Your task to perform on an android device: read, delete, or share a saved page in the chrome app Image 0: 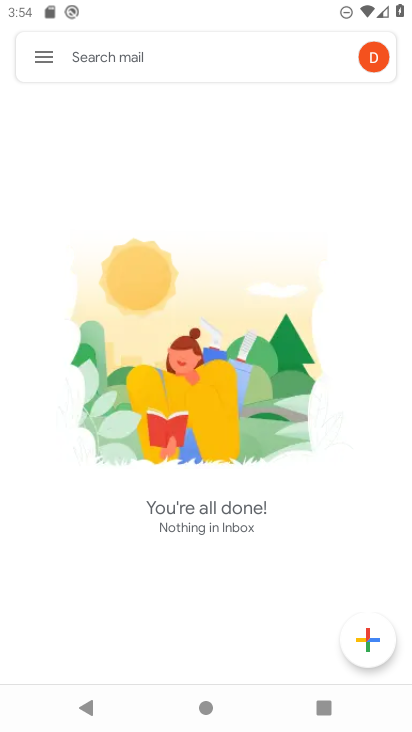
Step 0: press home button
Your task to perform on an android device: read, delete, or share a saved page in the chrome app Image 1: 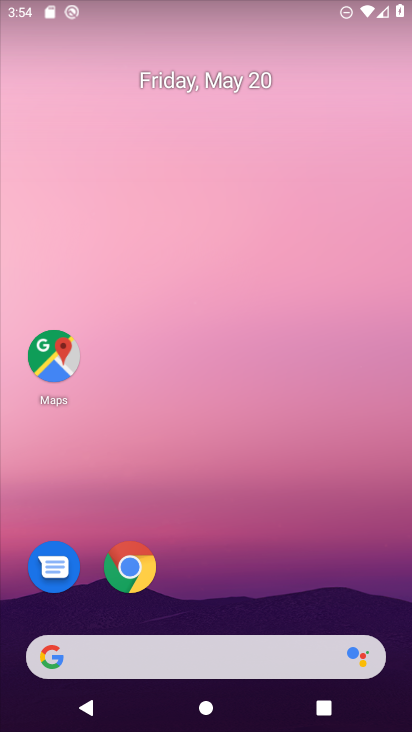
Step 1: click (130, 573)
Your task to perform on an android device: read, delete, or share a saved page in the chrome app Image 2: 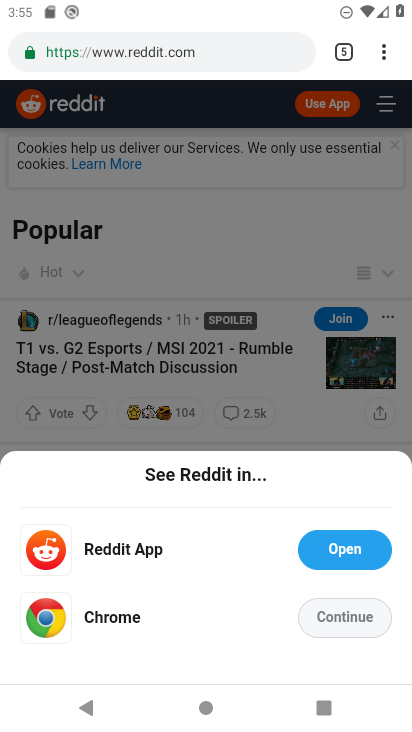
Step 2: click (385, 58)
Your task to perform on an android device: read, delete, or share a saved page in the chrome app Image 3: 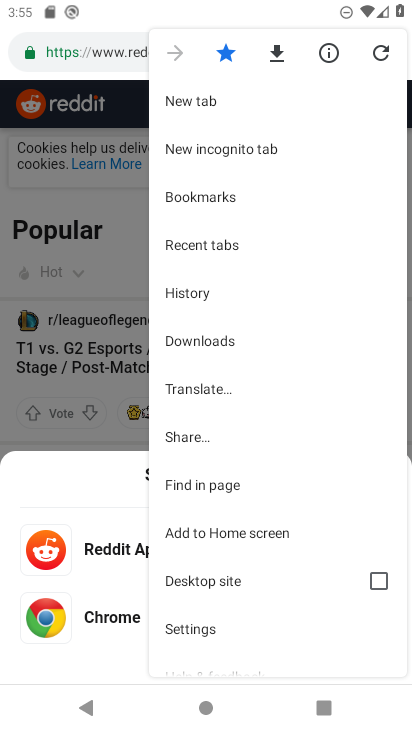
Step 3: click (195, 341)
Your task to perform on an android device: read, delete, or share a saved page in the chrome app Image 4: 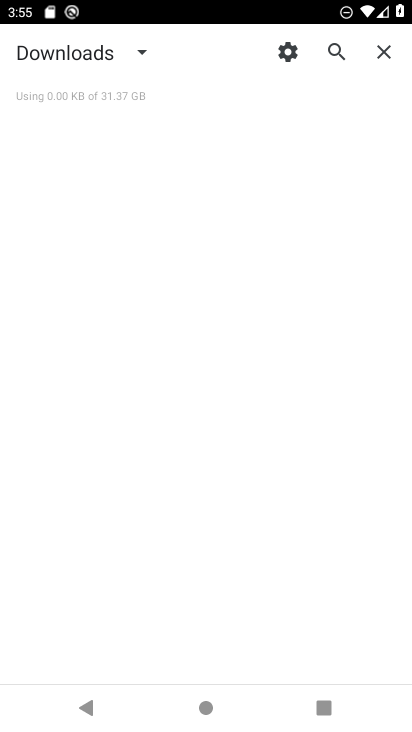
Step 4: click (143, 48)
Your task to perform on an android device: read, delete, or share a saved page in the chrome app Image 5: 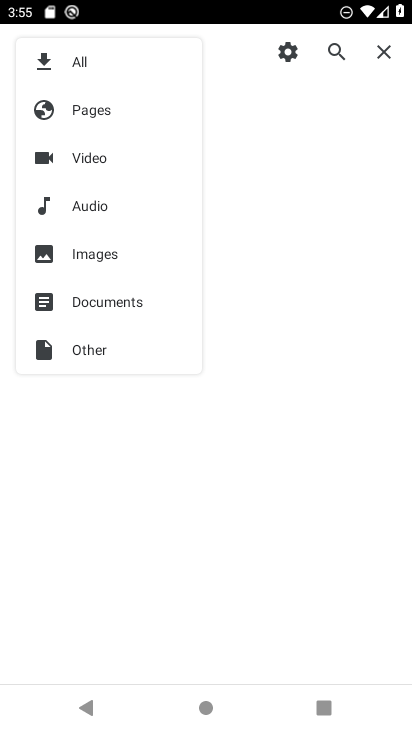
Step 5: click (95, 112)
Your task to perform on an android device: read, delete, or share a saved page in the chrome app Image 6: 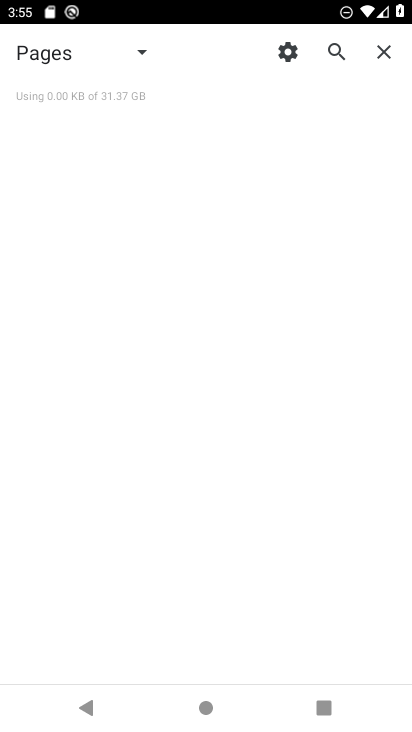
Step 6: task complete